Your task to perform on an android device: Go to Maps Image 0: 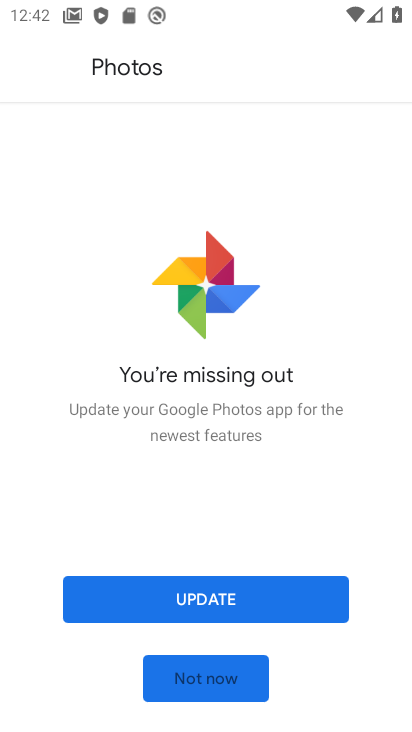
Step 0: press home button
Your task to perform on an android device: Go to Maps Image 1: 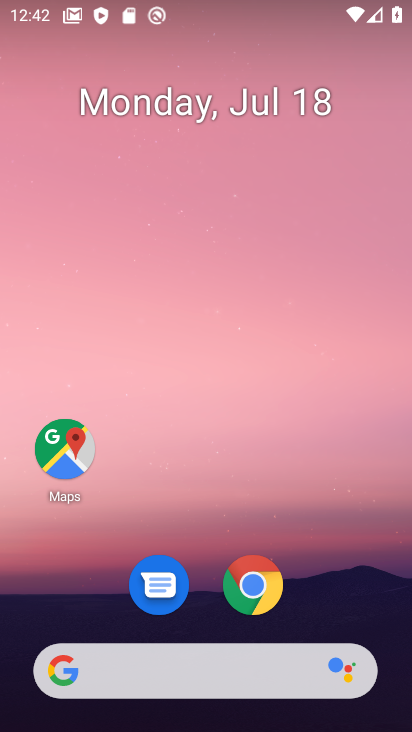
Step 1: click (67, 453)
Your task to perform on an android device: Go to Maps Image 2: 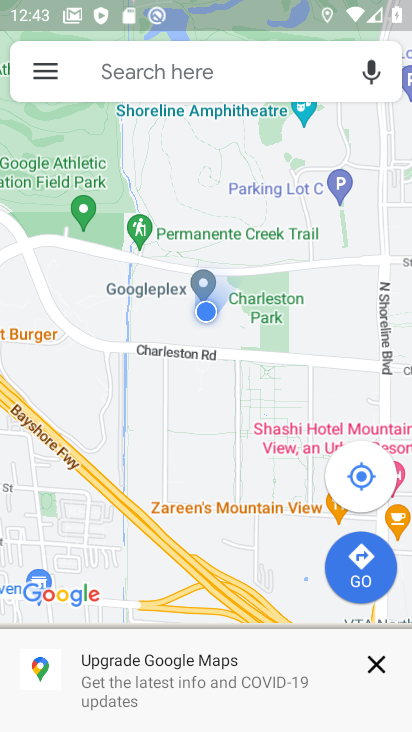
Step 2: task complete